Your task to perform on an android device: Open Google Image 0: 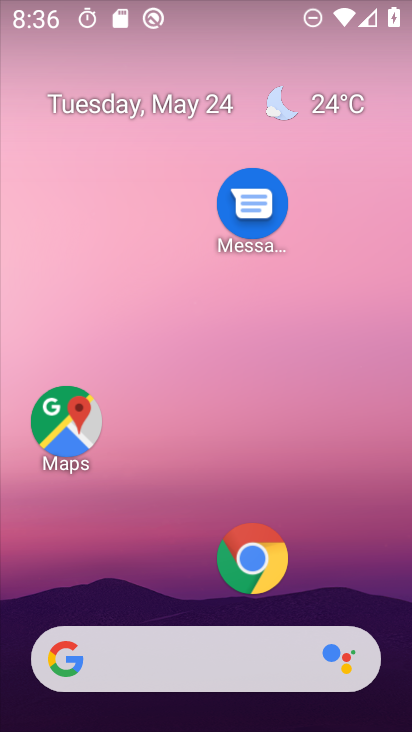
Step 0: drag from (189, 599) to (191, 210)
Your task to perform on an android device: Open Google Image 1: 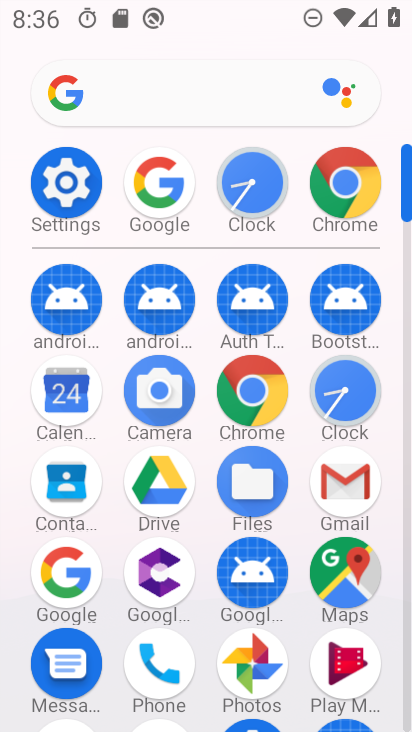
Step 1: click (164, 207)
Your task to perform on an android device: Open Google Image 2: 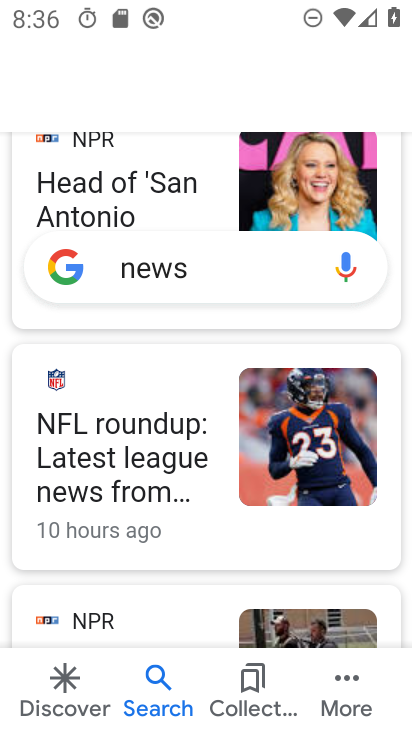
Step 2: task complete